Your task to perform on an android device: check battery use Image 0: 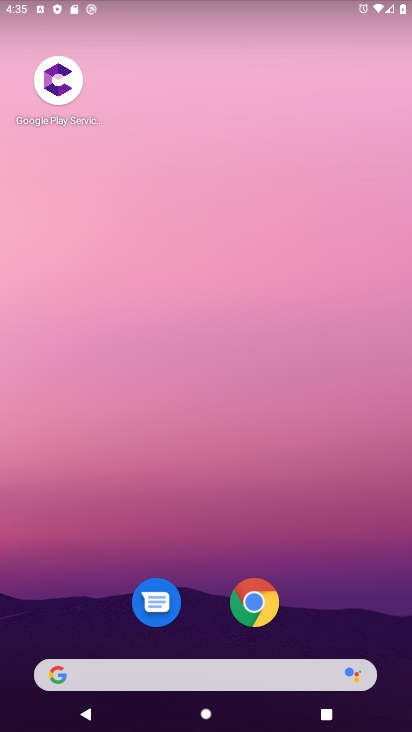
Step 0: drag from (228, 663) to (304, 118)
Your task to perform on an android device: check battery use Image 1: 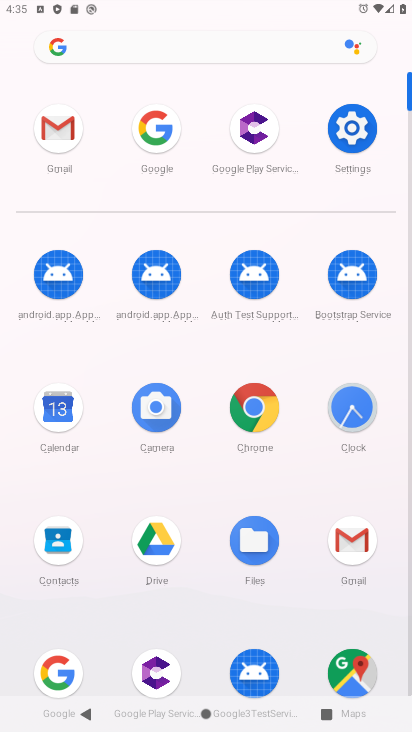
Step 1: click (364, 130)
Your task to perform on an android device: check battery use Image 2: 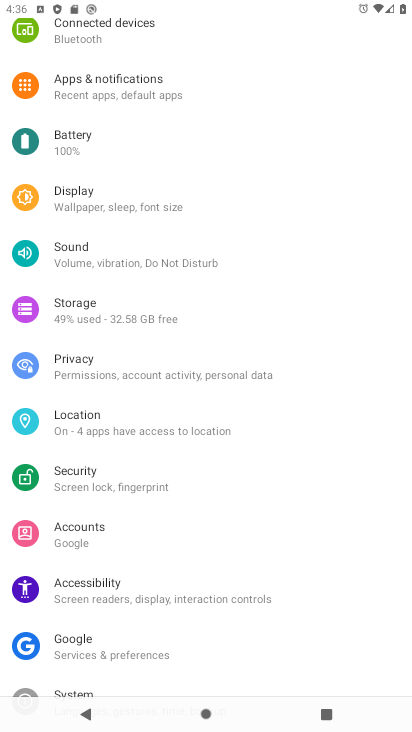
Step 2: click (91, 147)
Your task to perform on an android device: check battery use Image 3: 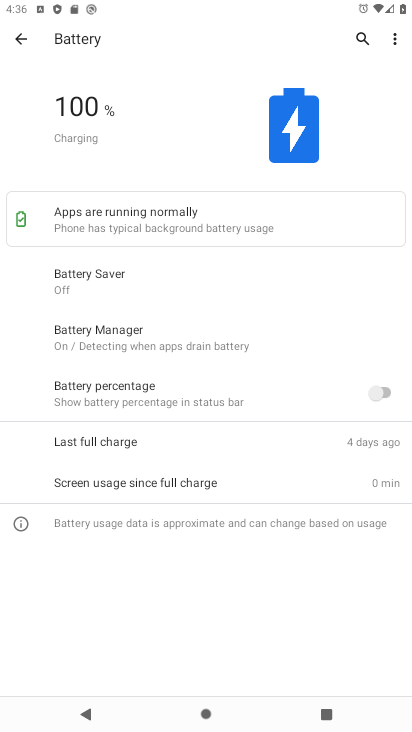
Step 3: task complete